Your task to perform on an android device: delete location history Image 0: 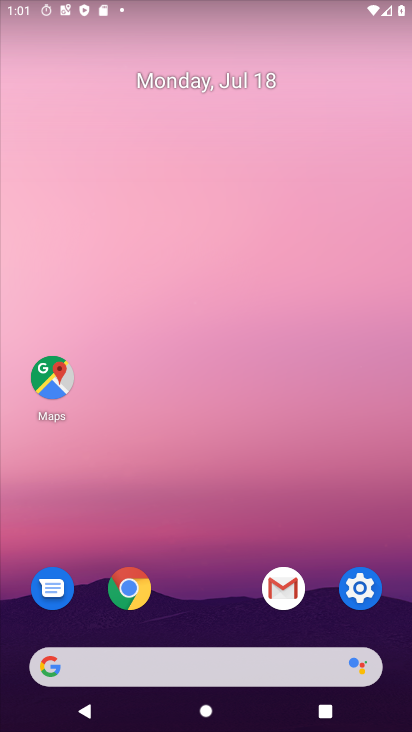
Step 0: press home button
Your task to perform on an android device: delete location history Image 1: 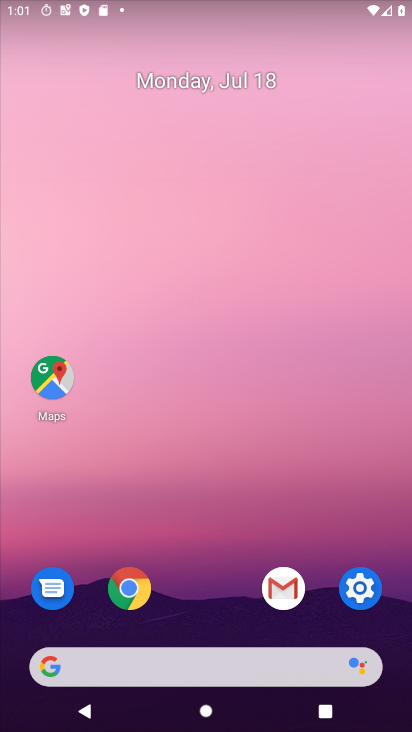
Step 1: click (356, 597)
Your task to perform on an android device: delete location history Image 2: 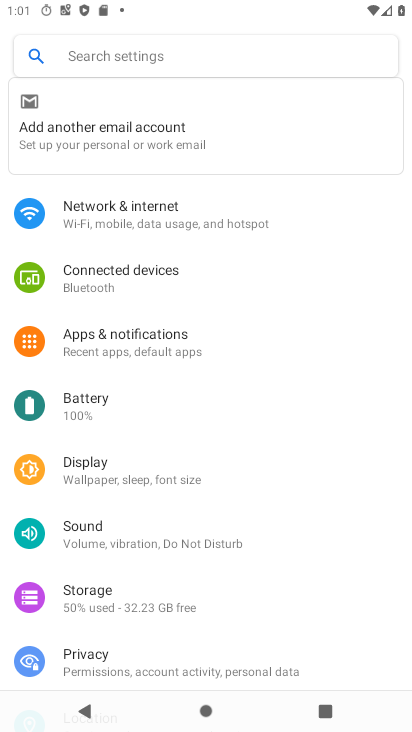
Step 2: drag from (133, 650) to (154, 529)
Your task to perform on an android device: delete location history Image 3: 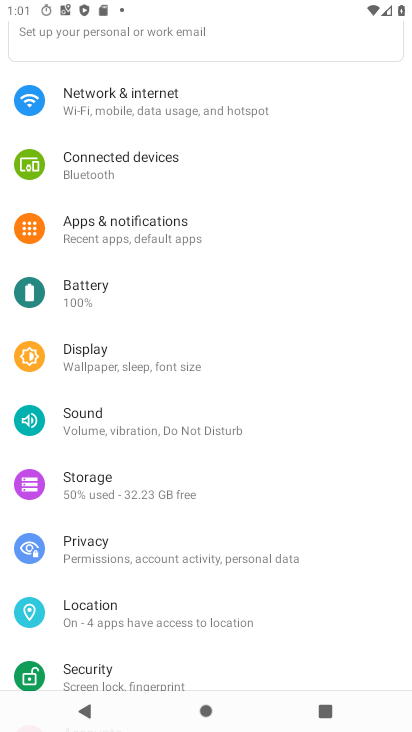
Step 3: click (113, 620)
Your task to perform on an android device: delete location history Image 4: 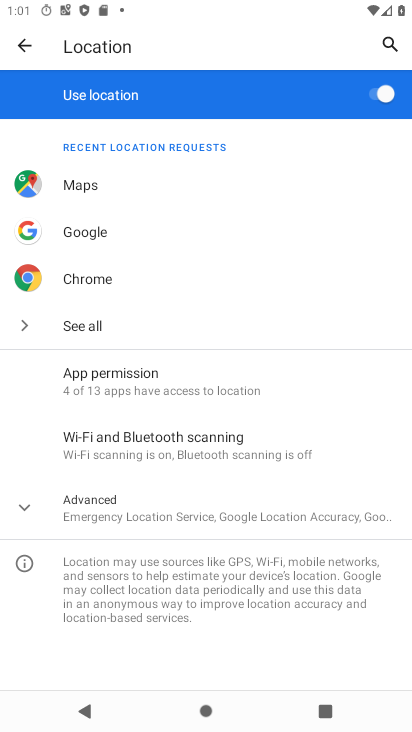
Step 4: click (26, 506)
Your task to perform on an android device: delete location history Image 5: 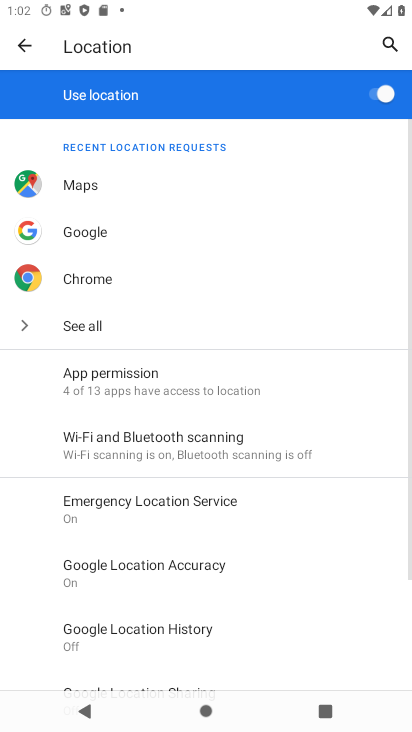
Step 5: click (147, 639)
Your task to perform on an android device: delete location history Image 6: 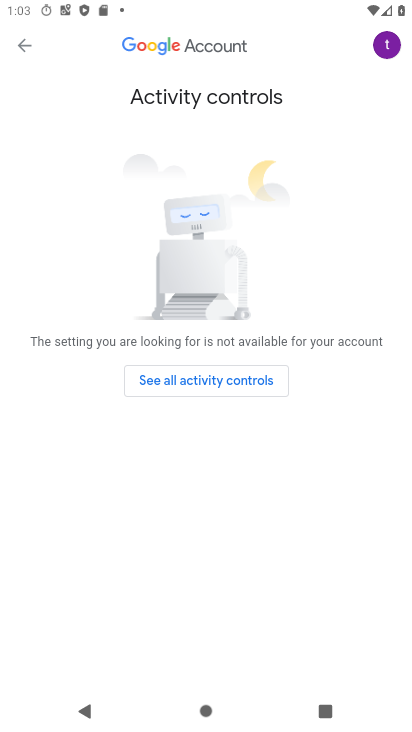
Step 6: click (182, 383)
Your task to perform on an android device: delete location history Image 7: 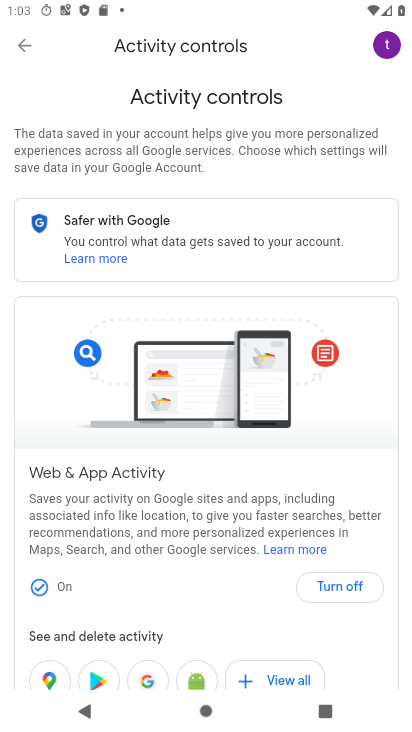
Step 7: task complete